Your task to perform on an android device: Open Youtube and go to "Your channel" Image 0: 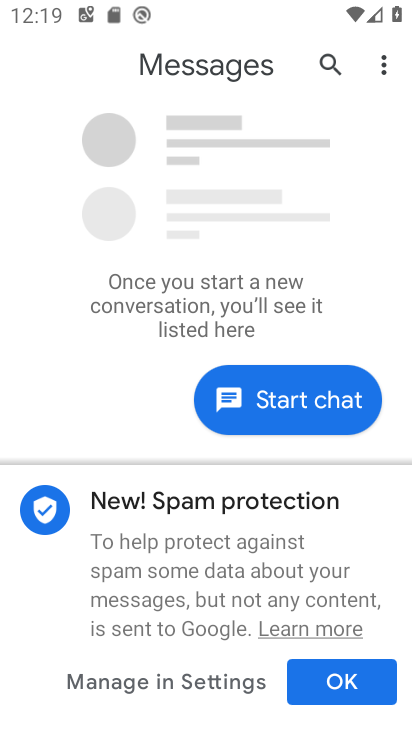
Step 0: press home button
Your task to perform on an android device: Open Youtube and go to "Your channel" Image 1: 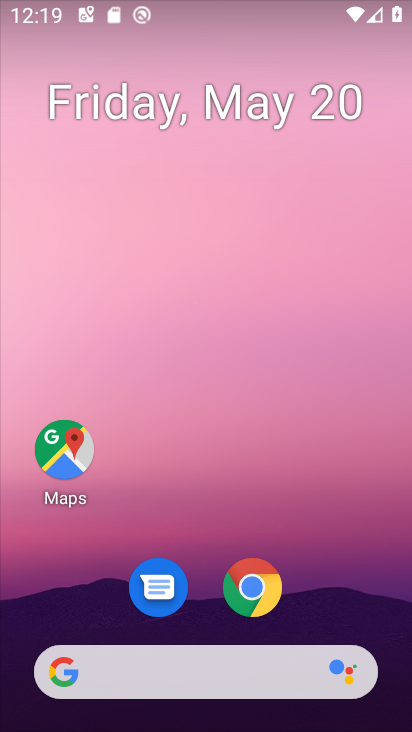
Step 1: drag from (368, 597) to (379, 169)
Your task to perform on an android device: Open Youtube and go to "Your channel" Image 2: 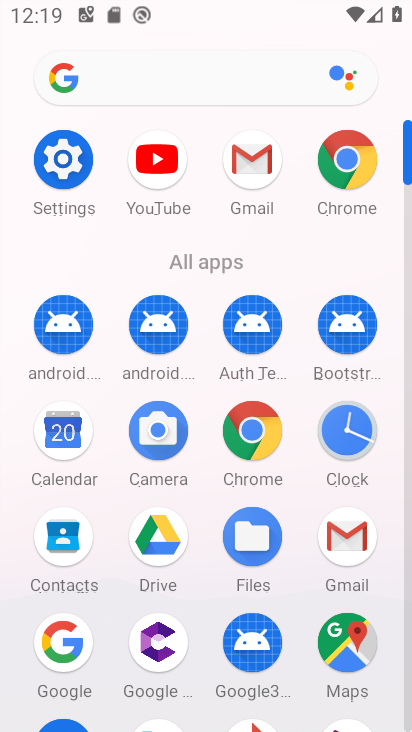
Step 2: click (175, 209)
Your task to perform on an android device: Open Youtube and go to "Your channel" Image 3: 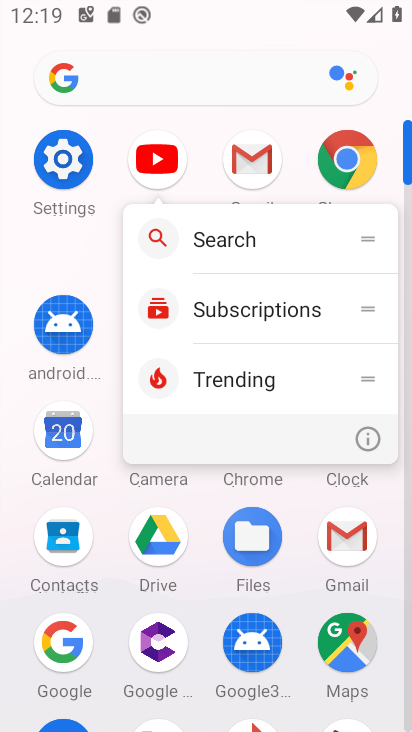
Step 3: click (166, 166)
Your task to perform on an android device: Open Youtube and go to "Your channel" Image 4: 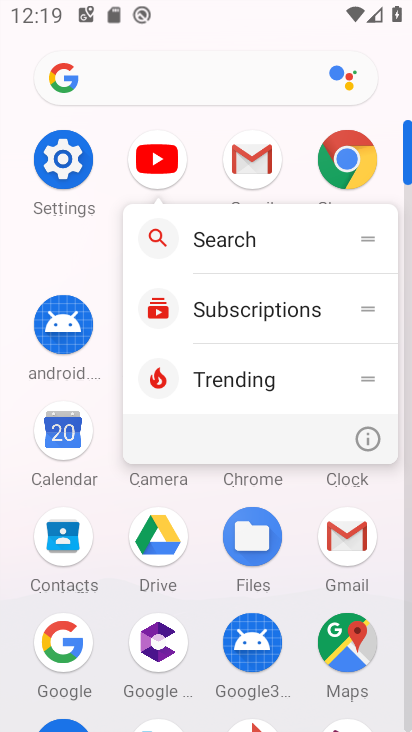
Step 4: click (166, 166)
Your task to perform on an android device: Open Youtube and go to "Your channel" Image 5: 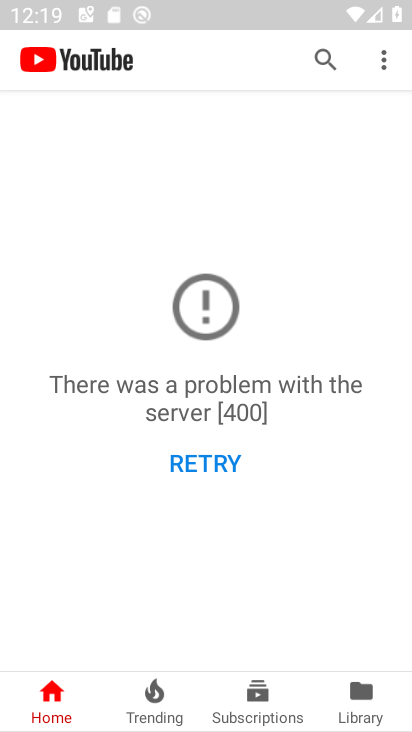
Step 5: click (386, 67)
Your task to perform on an android device: Open Youtube and go to "Your channel" Image 6: 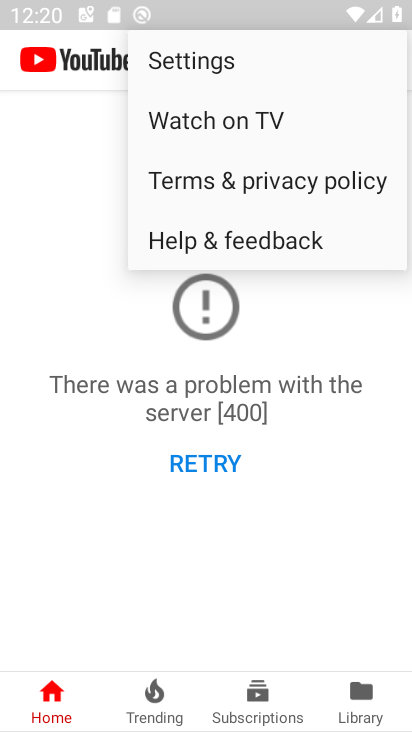
Step 6: click (207, 60)
Your task to perform on an android device: Open Youtube and go to "Your channel" Image 7: 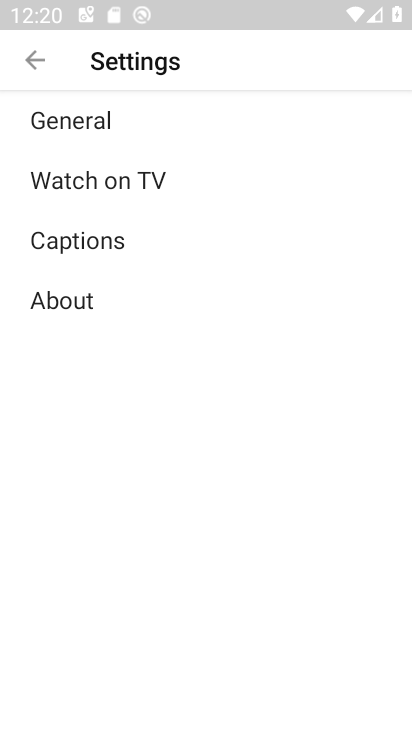
Step 7: click (37, 58)
Your task to perform on an android device: Open Youtube and go to "Your channel" Image 8: 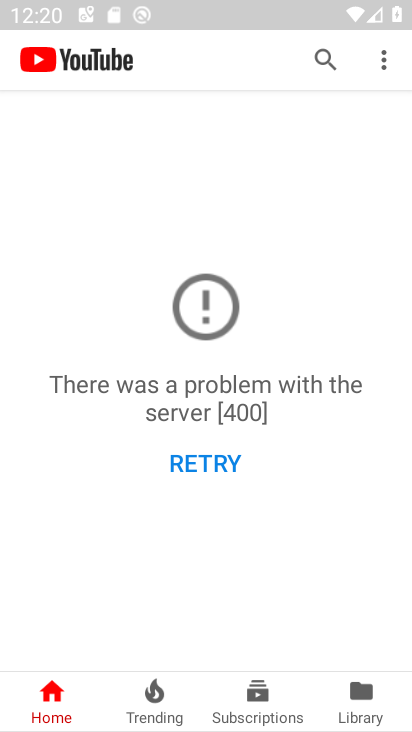
Step 8: task complete